Your task to perform on an android device: Open battery settings Image 0: 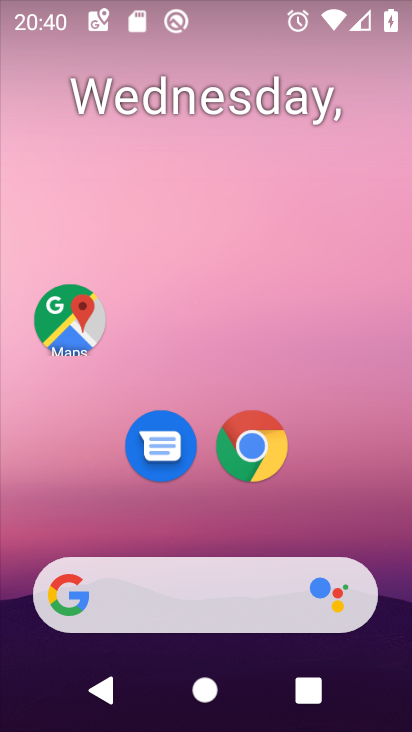
Step 0: task complete